Your task to perform on an android device: turn on airplane mode Image 0: 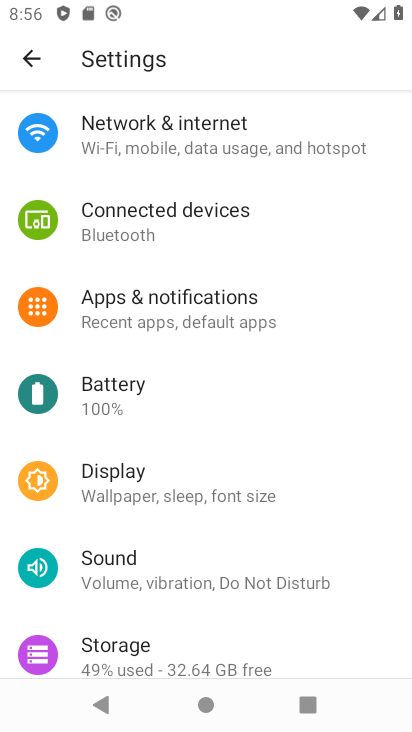
Step 0: click (275, 294)
Your task to perform on an android device: turn on airplane mode Image 1: 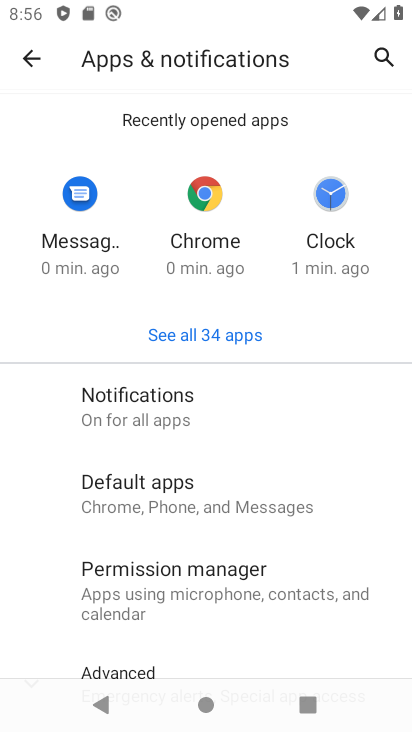
Step 1: click (25, 56)
Your task to perform on an android device: turn on airplane mode Image 2: 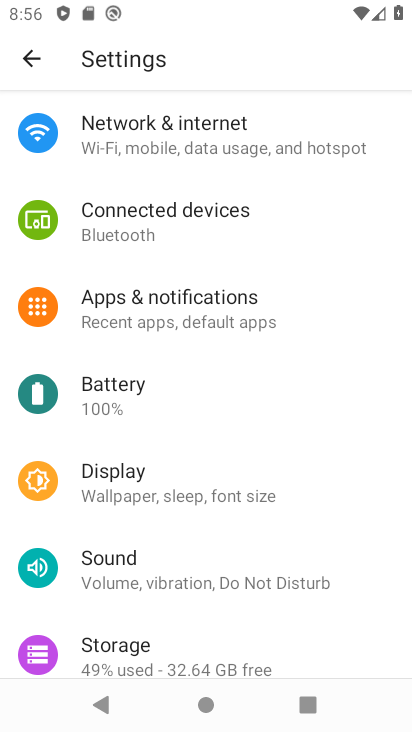
Step 2: click (152, 154)
Your task to perform on an android device: turn on airplane mode Image 3: 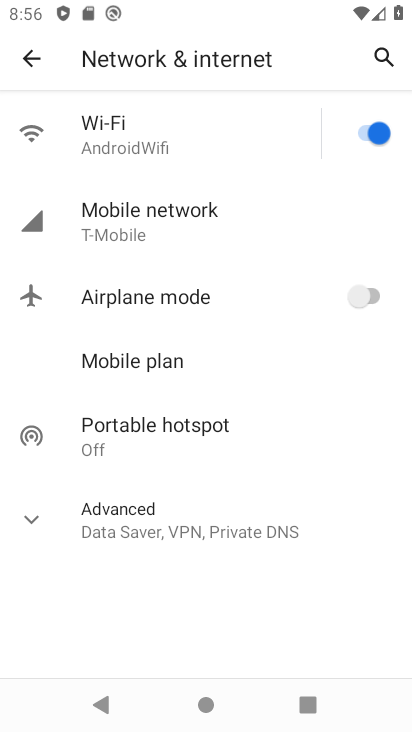
Step 3: click (372, 299)
Your task to perform on an android device: turn on airplane mode Image 4: 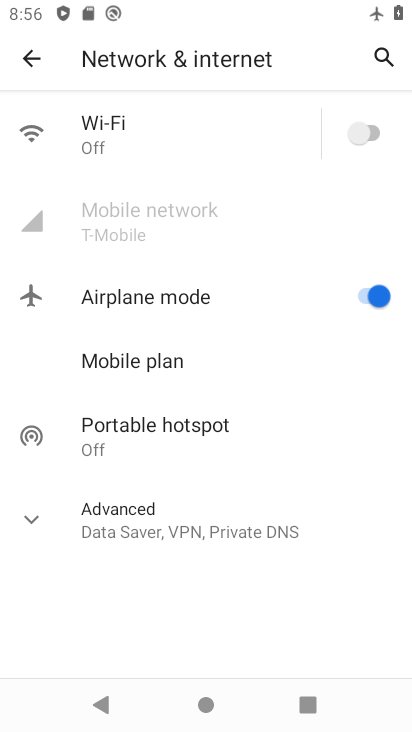
Step 4: task complete